Your task to perform on an android device: When is my next meeting? Image 0: 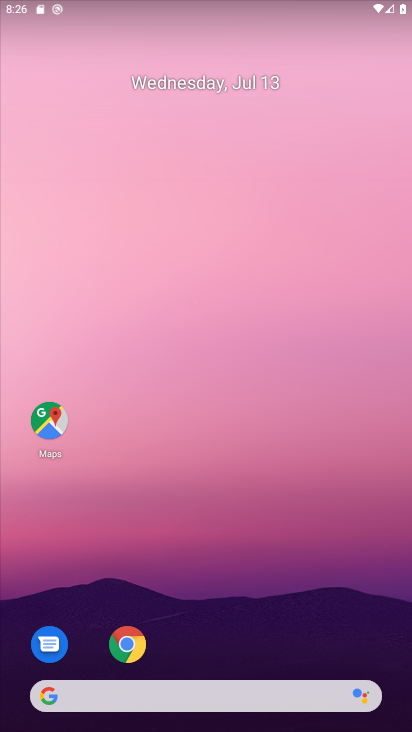
Step 0: drag from (300, 549) to (340, 76)
Your task to perform on an android device: When is my next meeting? Image 1: 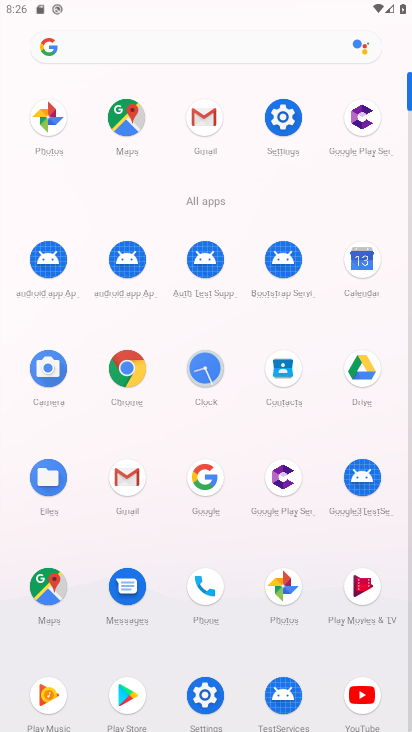
Step 1: click (365, 259)
Your task to perform on an android device: When is my next meeting? Image 2: 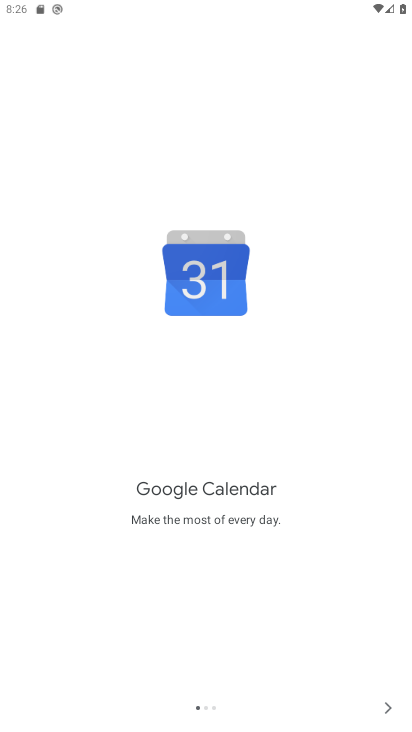
Step 2: click (390, 704)
Your task to perform on an android device: When is my next meeting? Image 3: 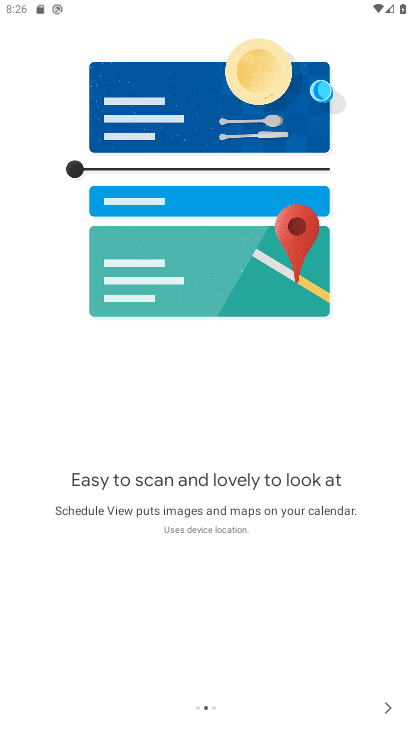
Step 3: click (390, 704)
Your task to perform on an android device: When is my next meeting? Image 4: 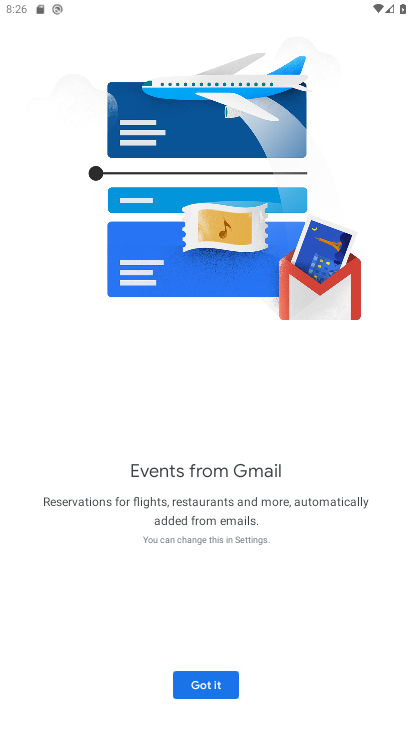
Step 4: click (214, 682)
Your task to perform on an android device: When is my next meeting? Image 5: 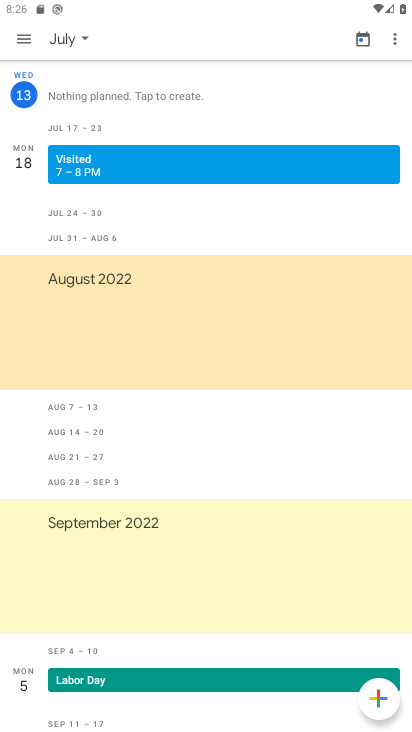
Step 5: click (78, 39)
Your task to perform on an android device: When is my next meeting? Image 6: 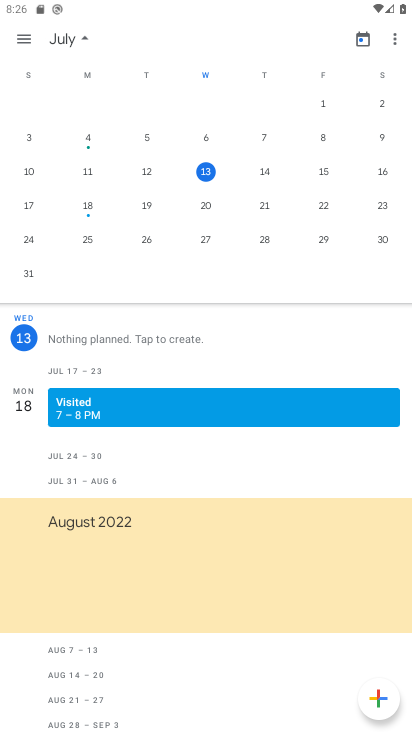
Step 6: click (209, 169)
Your task to perform on an android device: When is my next meeting? Image 7: 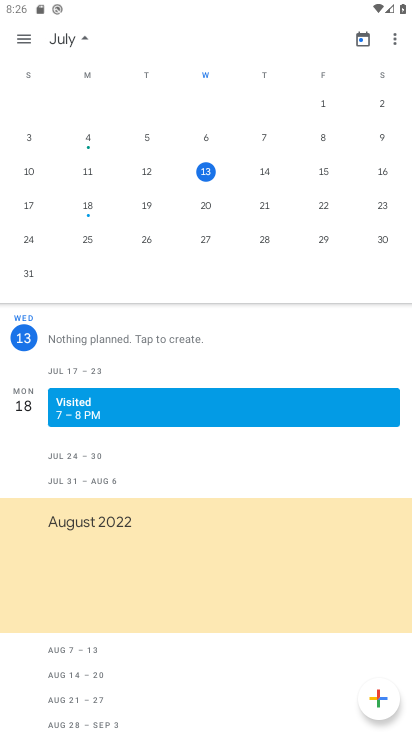
Step 7: task complete